Your task to perform on an android device: remove spam from my inbox in the gmail app Image 0: 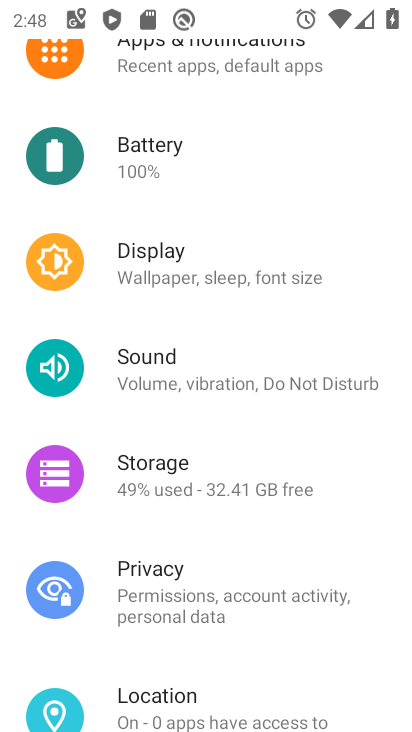
Step 0: press home button
Your task to perform on an android device: remove spam from my inbox in the gmail app Image 1: 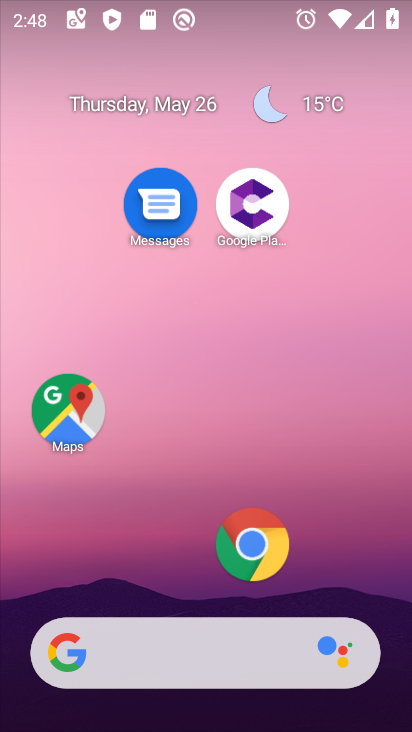
Step 1: drag from (178, 562) to (398, 18)
Your task to perform on an android device: remove spam from my inbox in the gmail app Image 2: 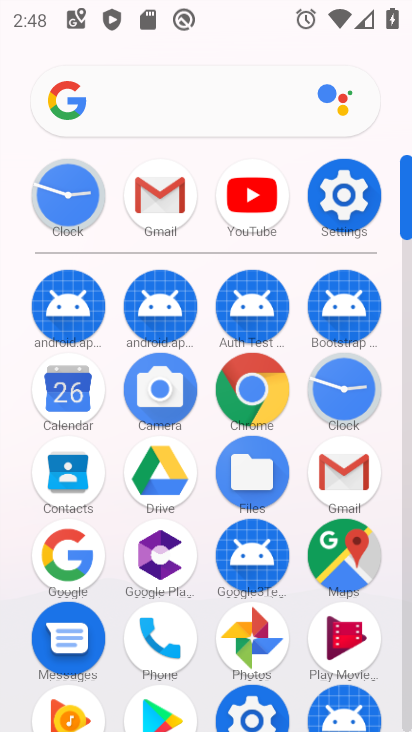
Step 2: click (357, 470)
Your task to perform on an android device: remove spam from my inbox in the gmail app Image 3: 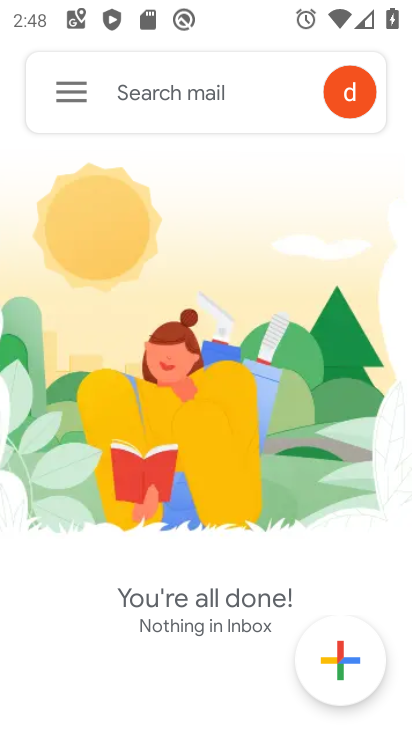
Step 3: click (79, 78)
Your task to perform on an android device: remove spam from my inbox in the gmail app Image 4: 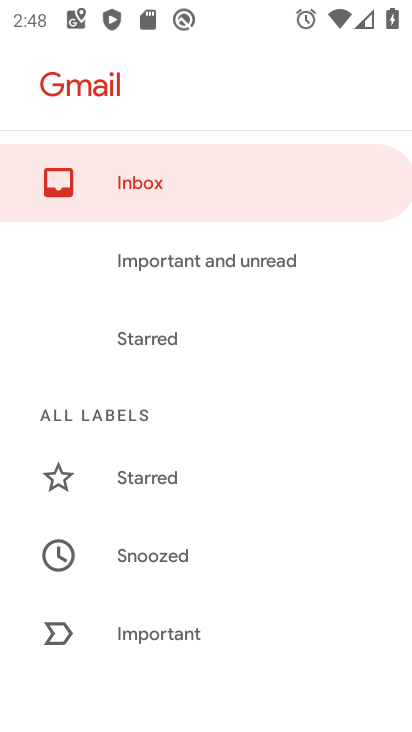
Step 4: drag from (180, 586) to (194, 223)
Your task to perform on an android device: remove spam from my inbox in the gmail app Image 5: 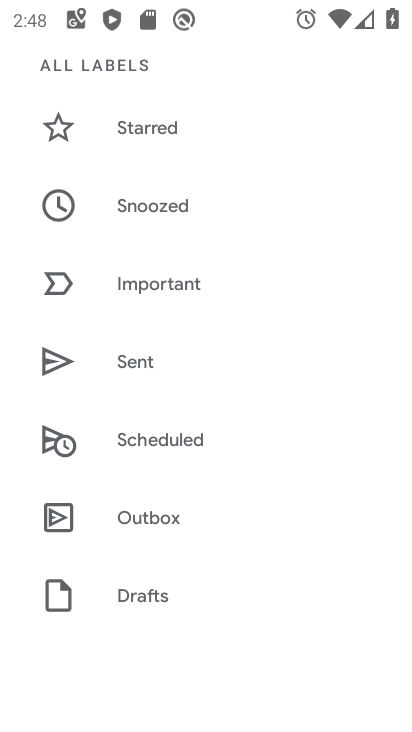
Step 5: drag from (151, 555) to (146, 221)
Your task to perform on an android device: remove spam from my inbox in the gmail app Image 6: 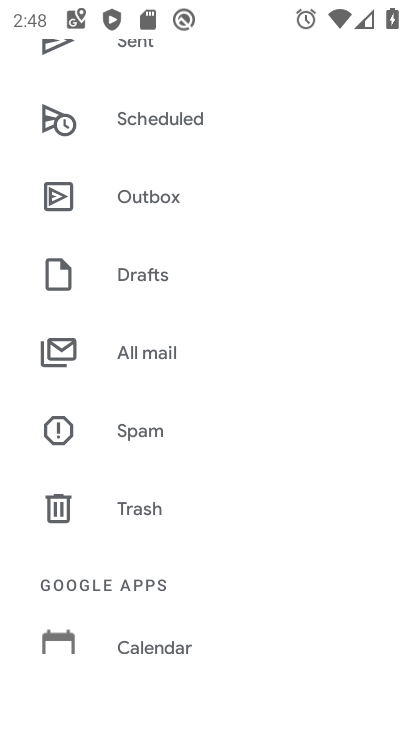
Step 6: click (99, 442)
Your task to perform on an android device: remove spam from my inbox in the gmail app Image 7: 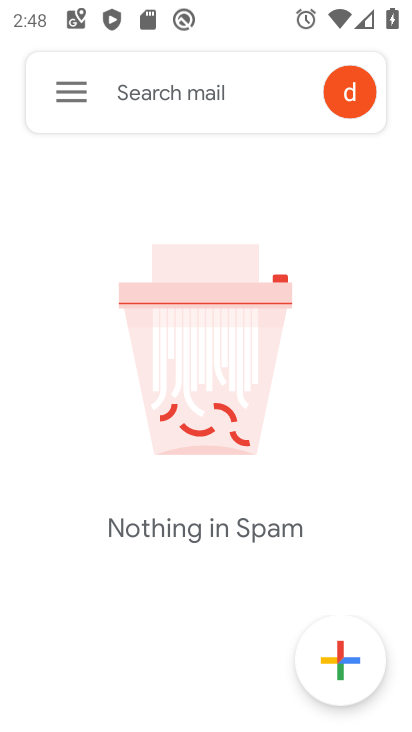
Step 7: task complete